Your task to perform on an android device: Open Google Chrome and open the bookmarks view Image 0: 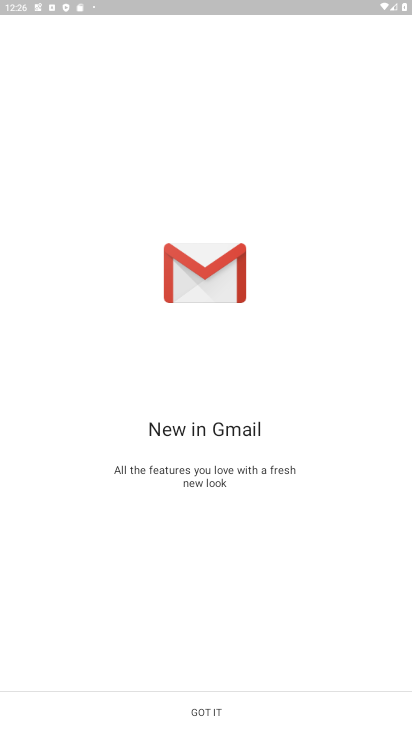
Step 0: press home button
Your task to perform on an android device: Open Google Chrome and open the bookmarks view Image 1: 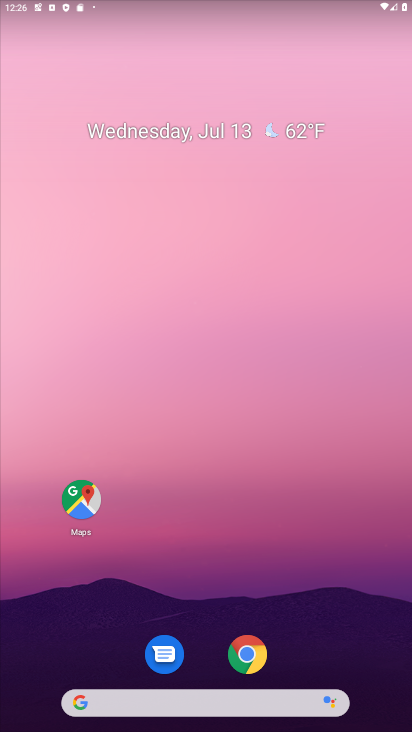
Step 1: drag from (240, 693) to (314, 1)
Your task to perform on an android device: Open Google Chrome and open the bookmarks view Image 2: 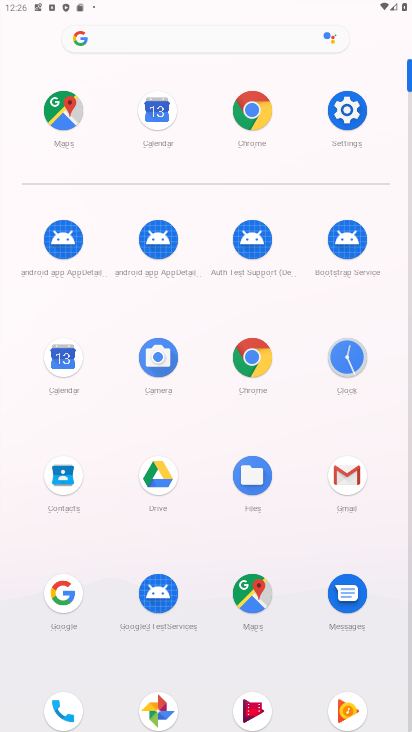
Step 2: click (250, 353)
Your task to perform on an android device: Open Google Chrome and open the bookmarks view Image 3: 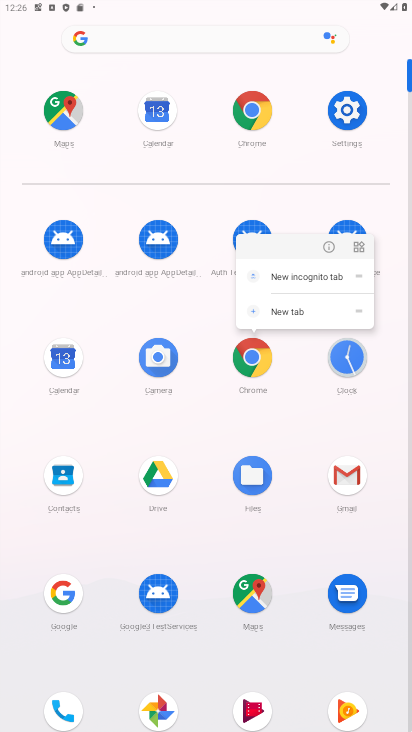
Step 3: click (255, 350)
Your task to perform on an android device: Open Google Chrome and open the bookmarks view Image 4: 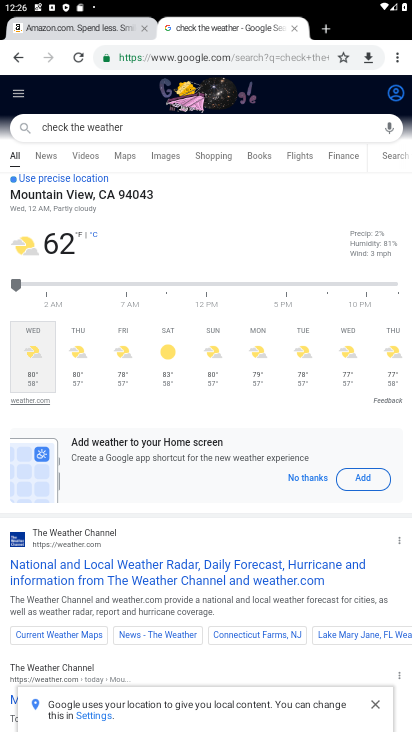
Step 4: task complete